Your task to perform on an android device: What's the weather going to be tomorrow? Image 0: 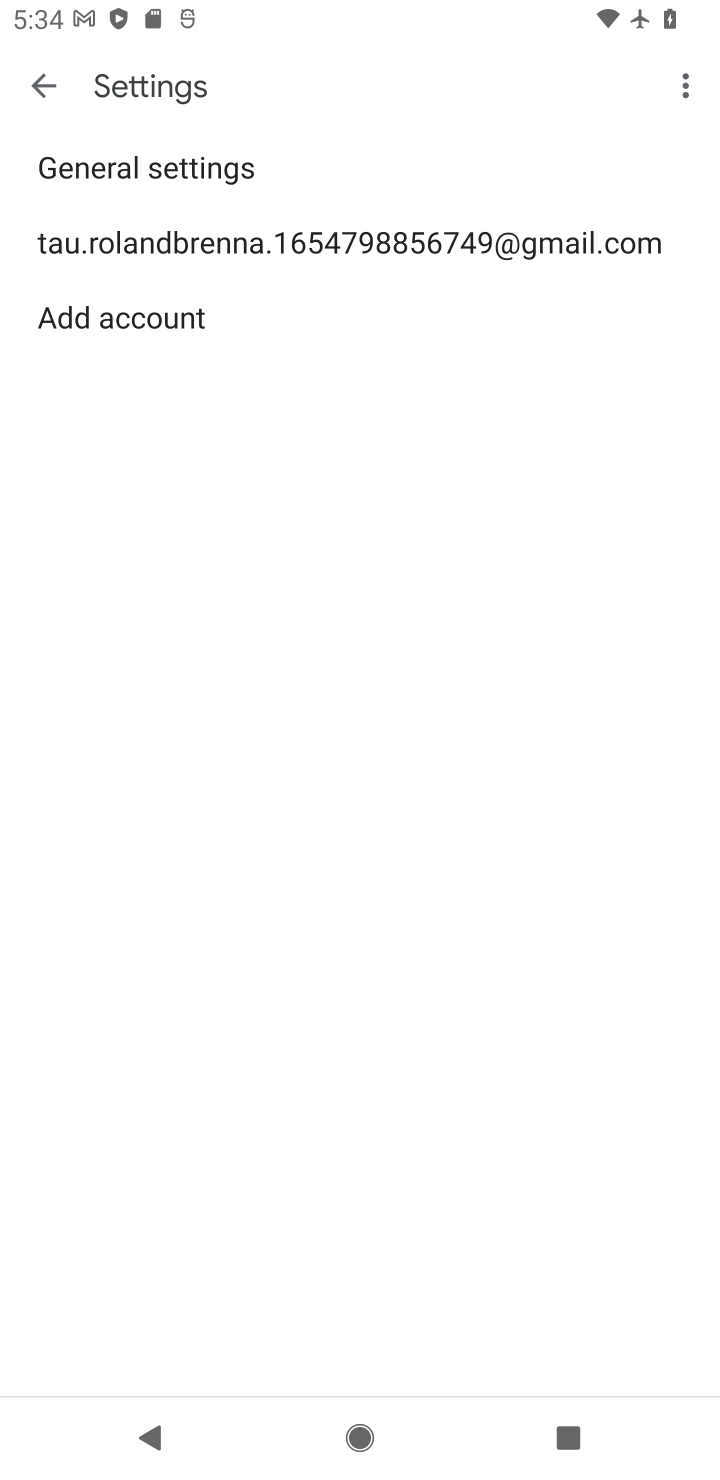
Step 0: press home button
Your task to perform on an android device: What's the weather going to be tomorrow? Image 1: 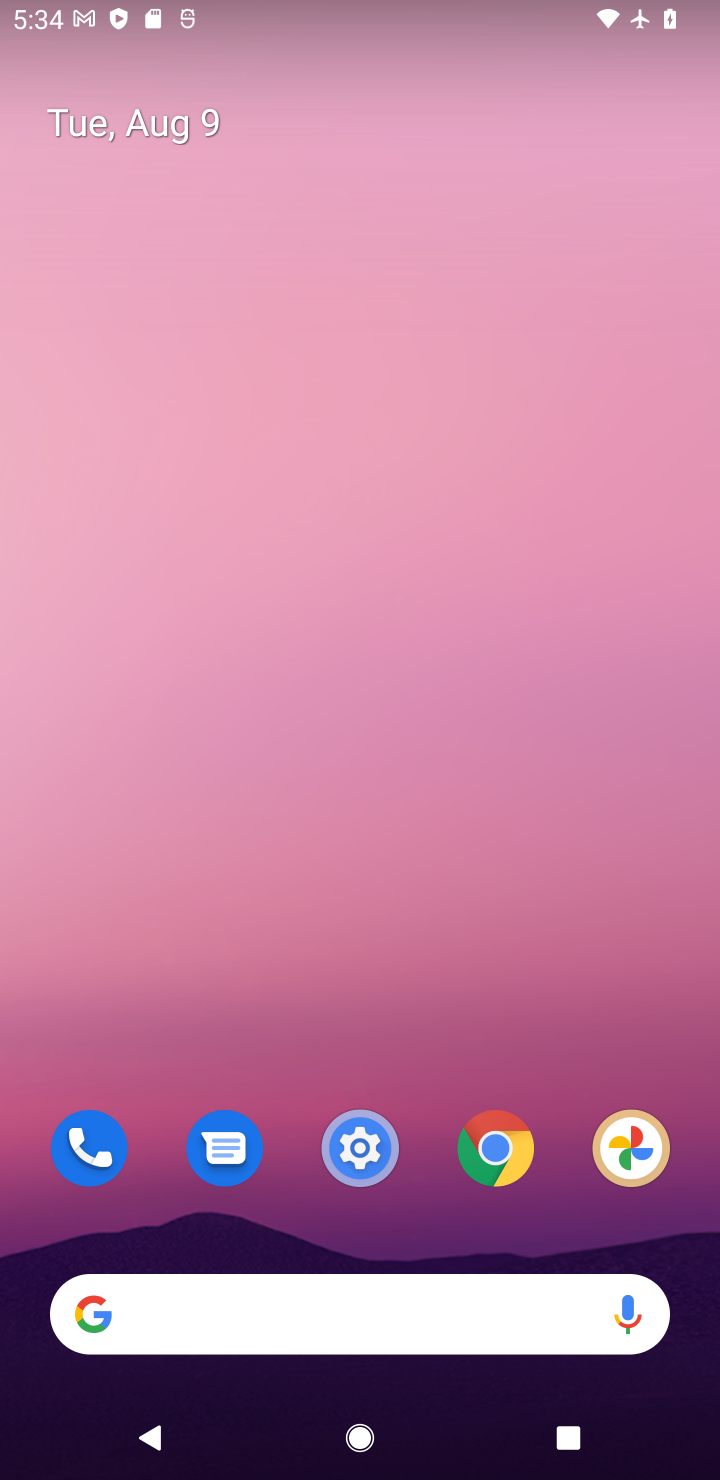
Step 1: click (298, 1322)
Your task to perform on an android device: What's the weather going to be tomorrow? Image 2: 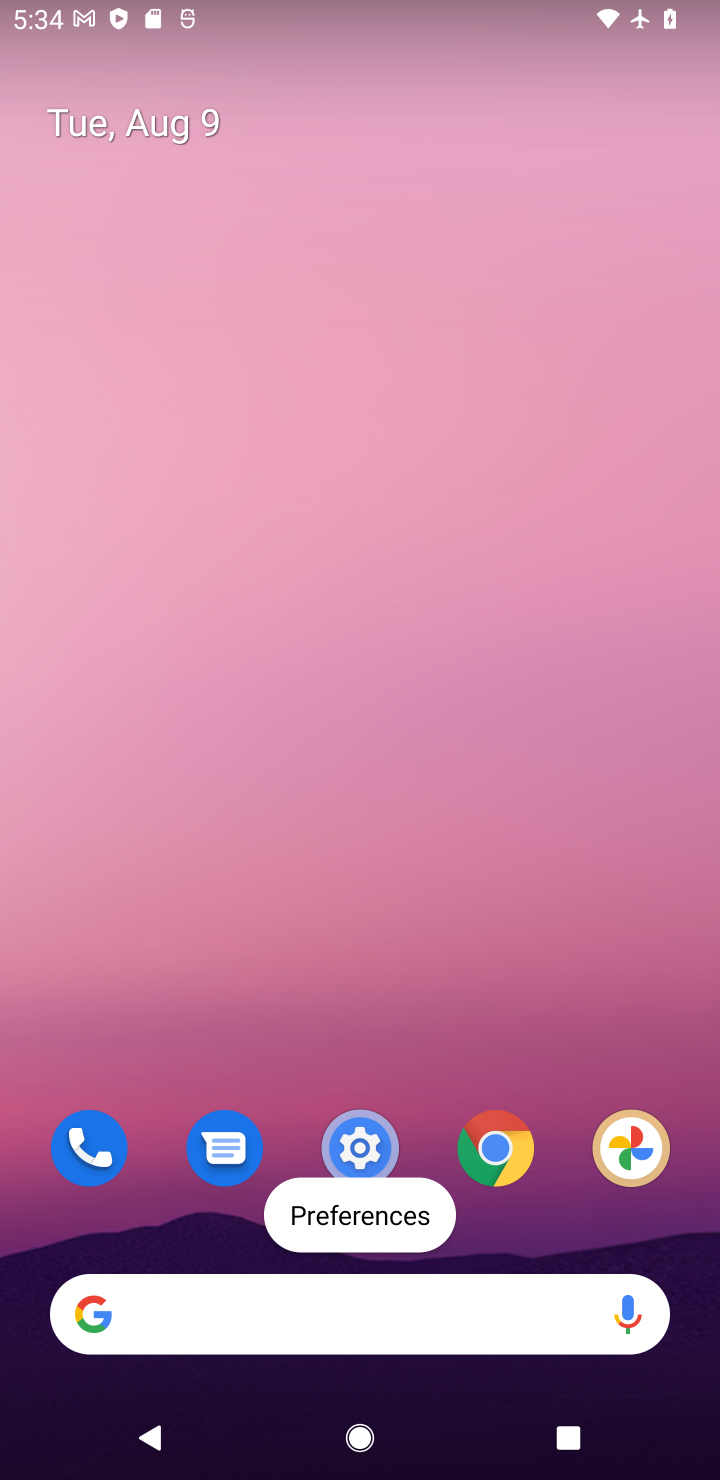
Step 2: click (399, 1322)
Your task to perform on an android device: What's the weather going to be tomorrow? Image 3: 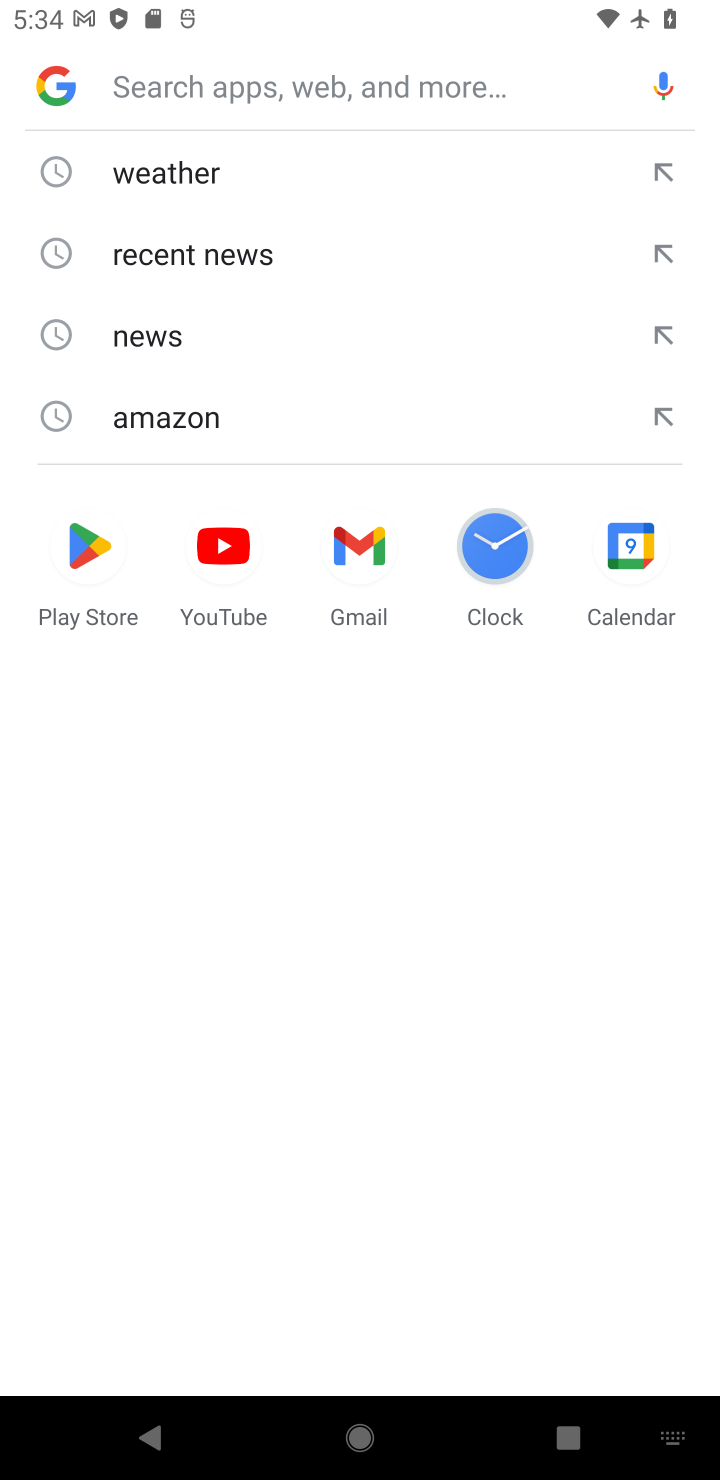
Step 3: click (192, 183)
Your task to perform on an android device: What's the weather going to be tomorrow? Image 4: 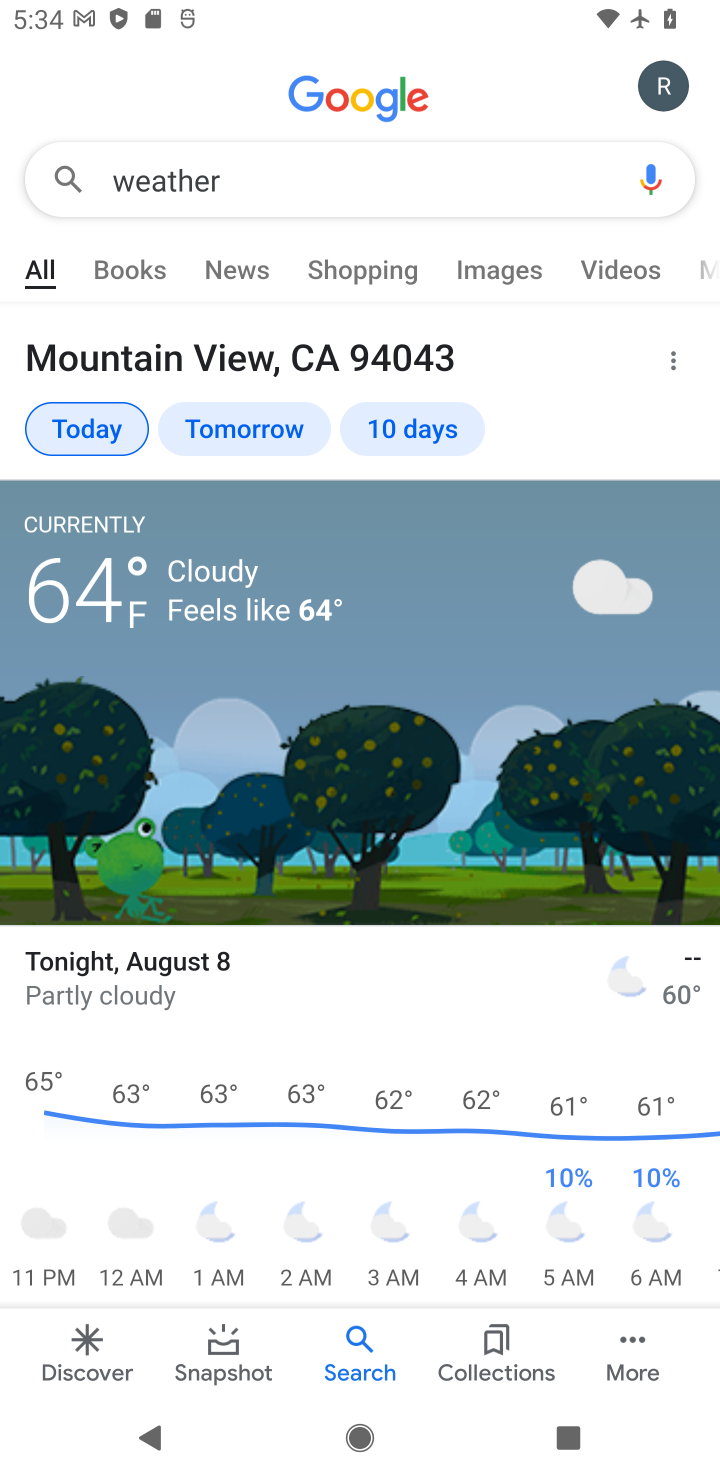
Step 4: click (238, 415)
Your task to perform on an android device: What's the weather going to be tomorrow? Image 5: 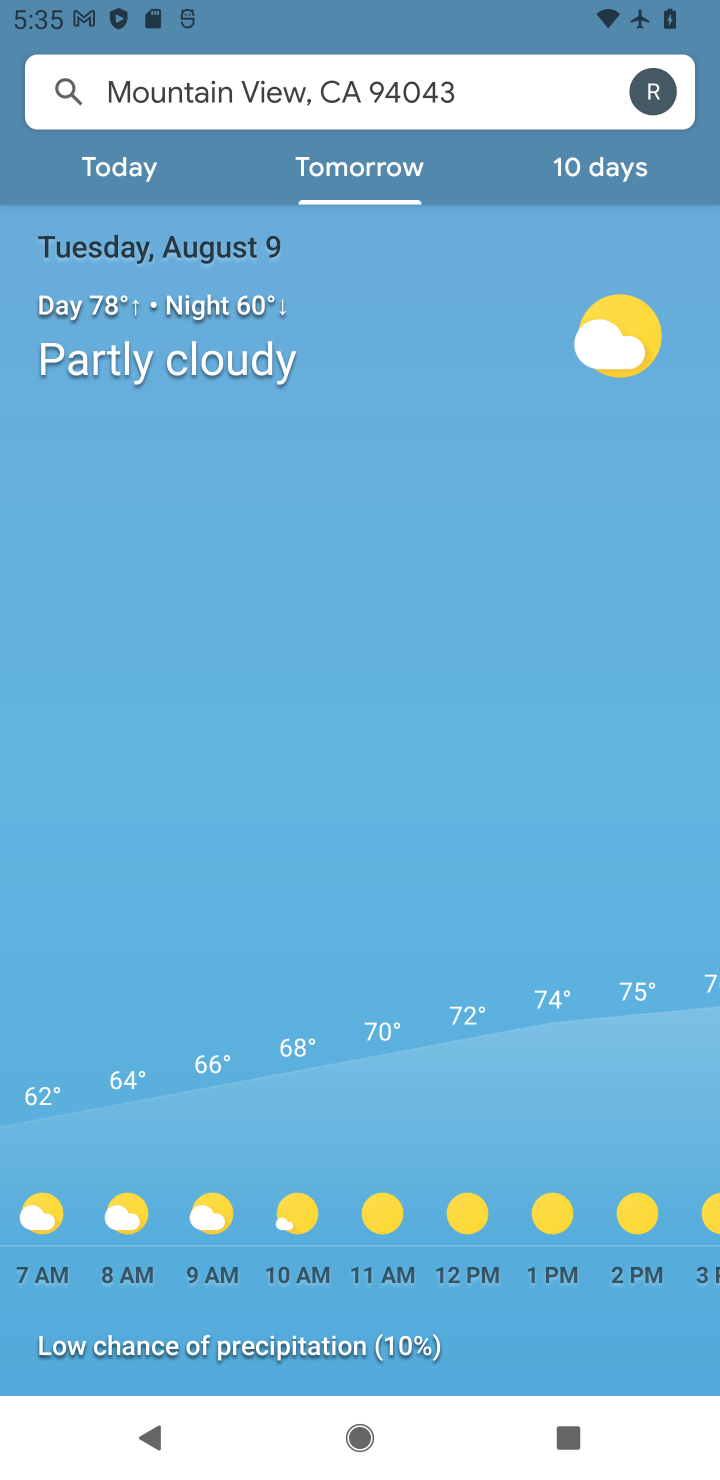
Step 5: task complete